Your task to perform on an android device: Open sound settings Image 0: 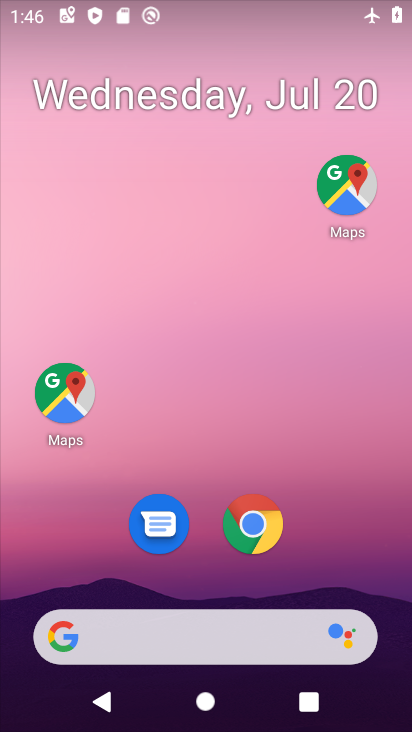
Step 0: drag from (327, 367) to (316, 9)
Your task to perform on an android device: Open sound settings Image 1: 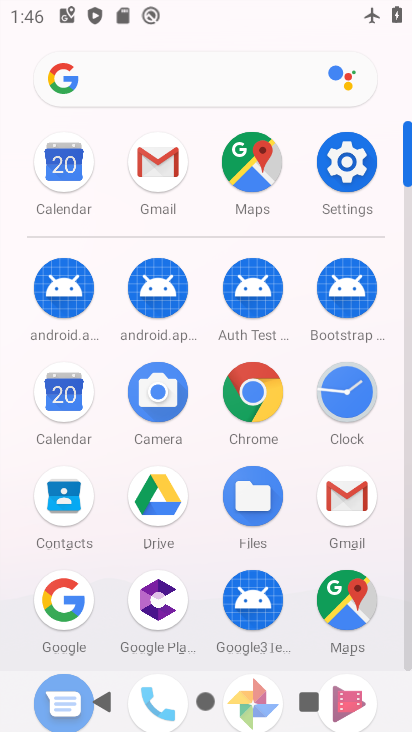
Step 1: click (346, 155)
Your task to perform on an android device: Open sound settings Image 2: 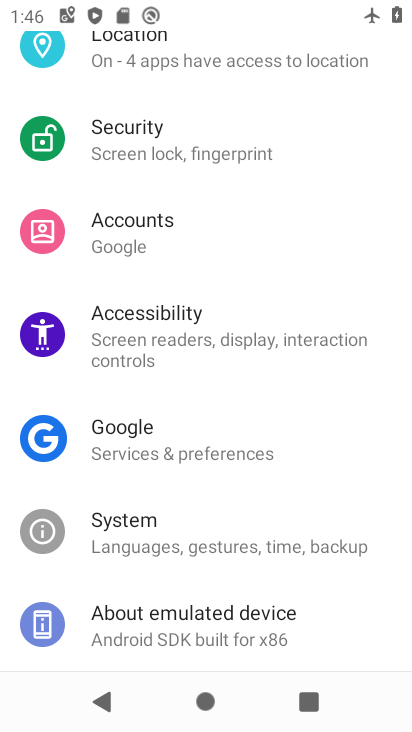
Step 2: drag from (216, 109) to (279, 635)
Your task to perform on an android device: Open sound settings Image 3: 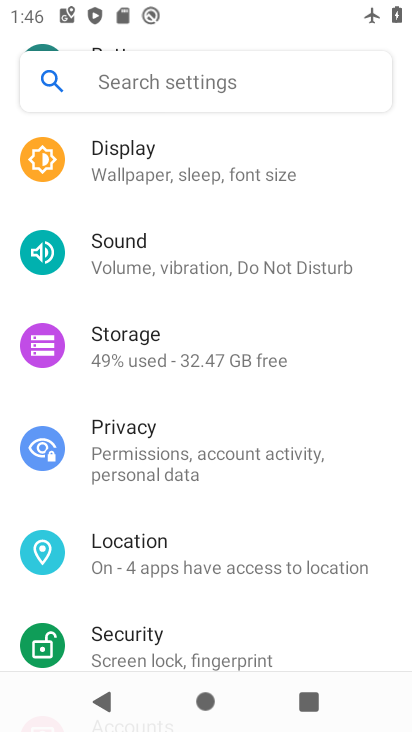
Step 3: click (215, 266)
Your task to perform on an android device: Open sound settings Image 4: 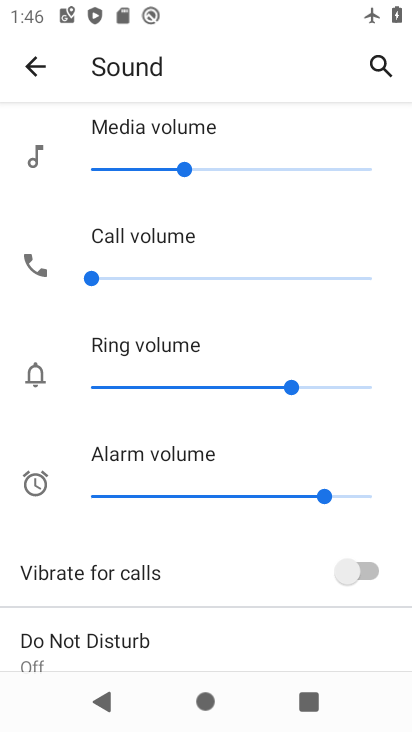
Step 4: task complete